Your task to perform on an android device: Open the web browser Image 0: 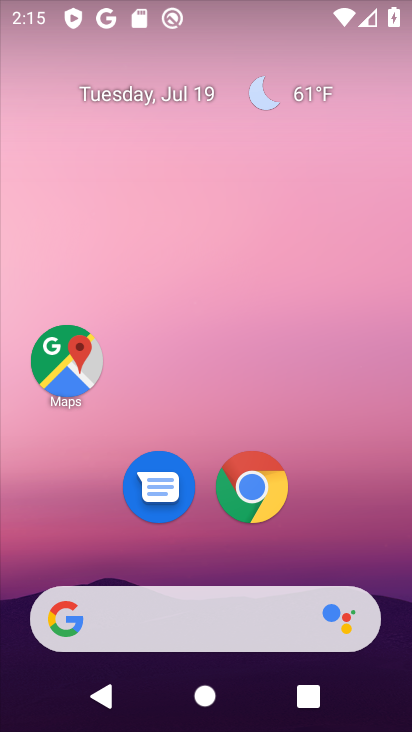
Step 0: click (250, 479)
Your task to perform on an android device: Open the web browser Image 1: 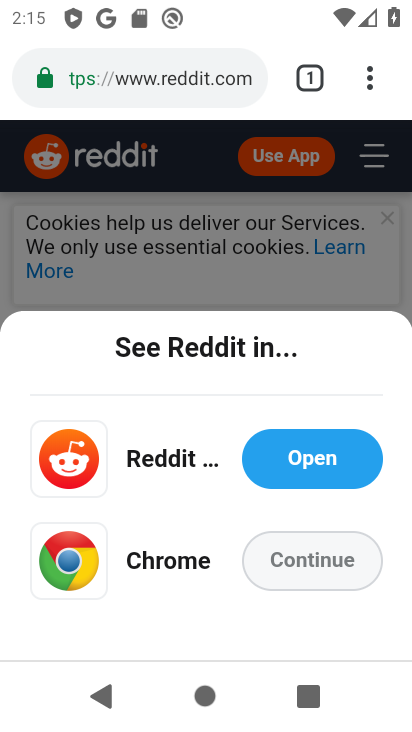
Step 1: task complete